Your task to perform on an android device: What is the recent news? Image 0: 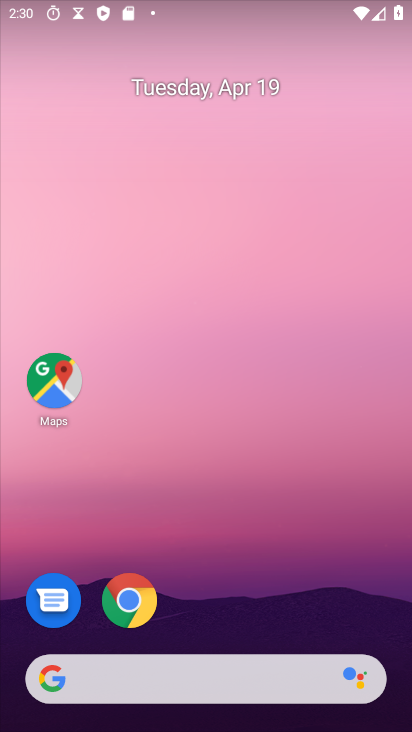
Step 0: click (134, 674)
Your task to perform on an android device: What is the recent news? Image 1: 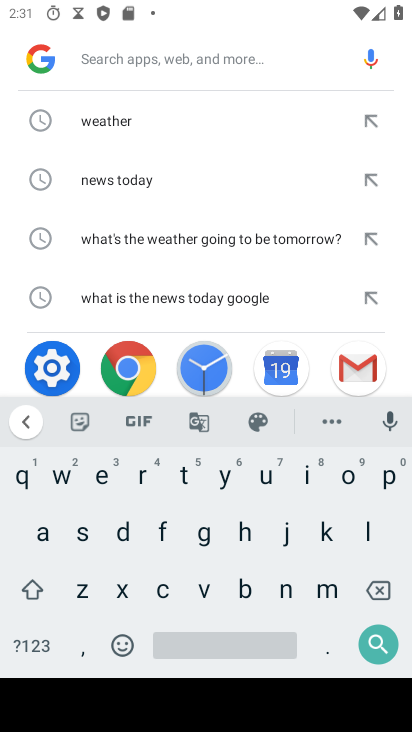
Step 1: click (142, 479)
Your task to perform on an android device: What is the recent news? Image 2: 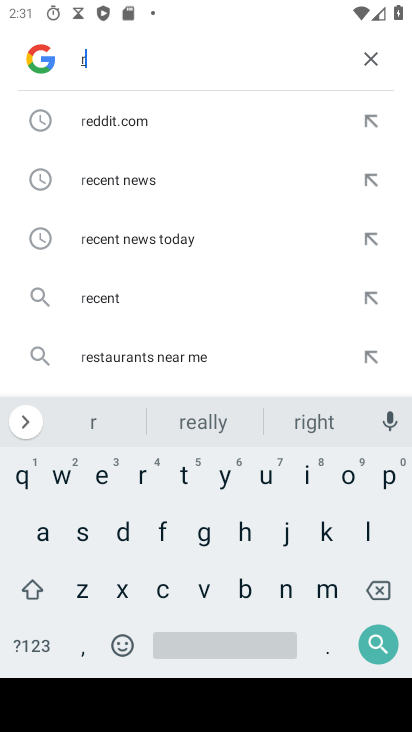
Step 2: click (104, 479)
Your task to perform on an android device: What is the recent news? Image 3: 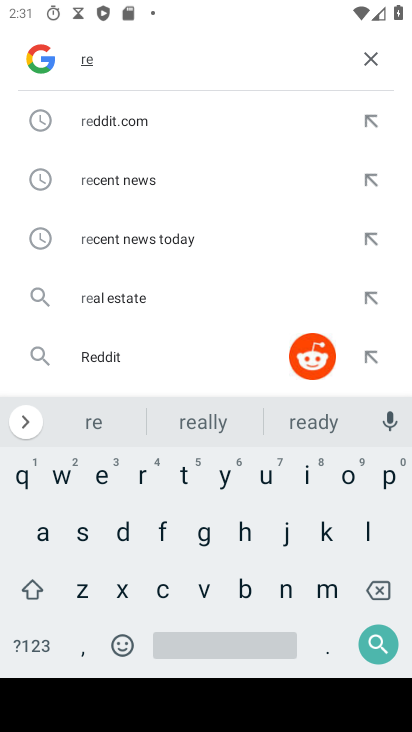
Step 3: click (109, 181)
Your task to perform on an android device: What is the recent news? Image 4: 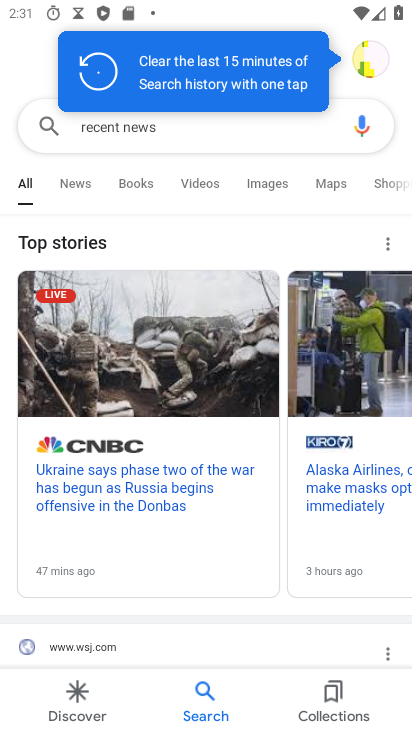
Step 4: task complete